Your task to perform on an android device: turn off picture-in-picture Image 0: 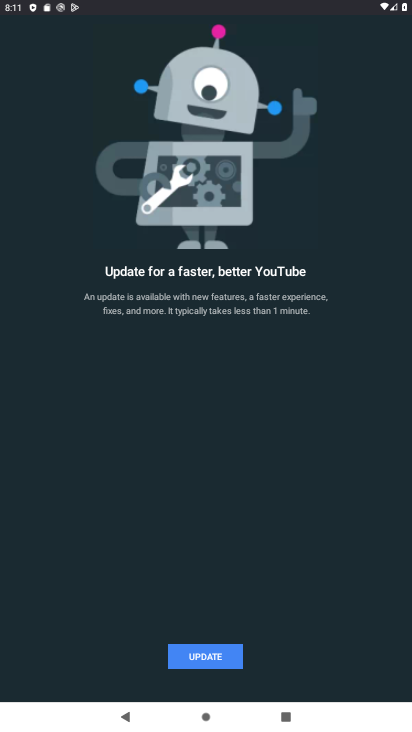
Step 0: press home button
Your task to perform on an android device: turn off picture-in-picture Image 1: 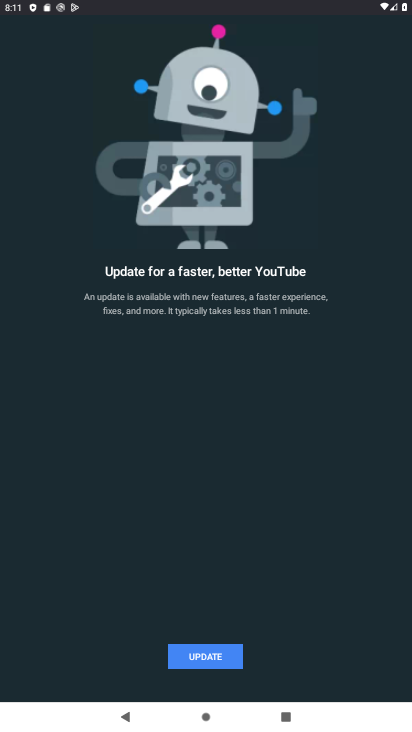
Step 1: press home button
Your task to perform on an android device: turn off picture-in-picture Image 2: 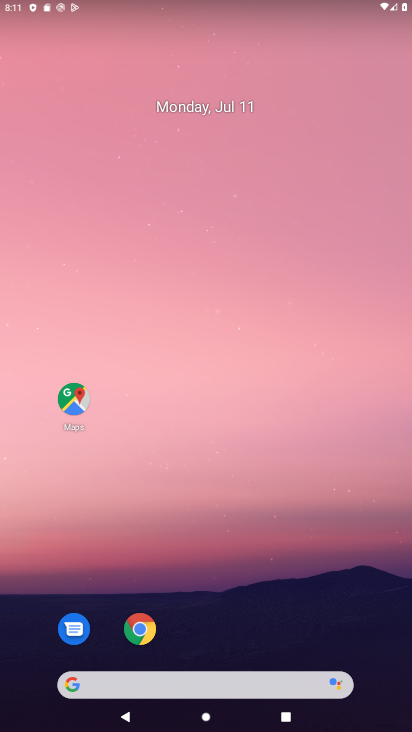
Step 2: drag from (213, 638) to (209, 189)
Your task to perform on an android device: turn off picture-in-picture Image 3: 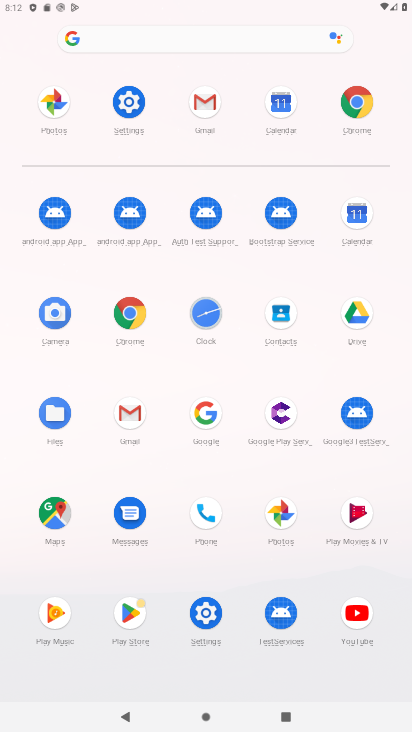
Step 3: click (122, 103)
Your task to perform on an android device: turn off picture-in-picture Image 4: 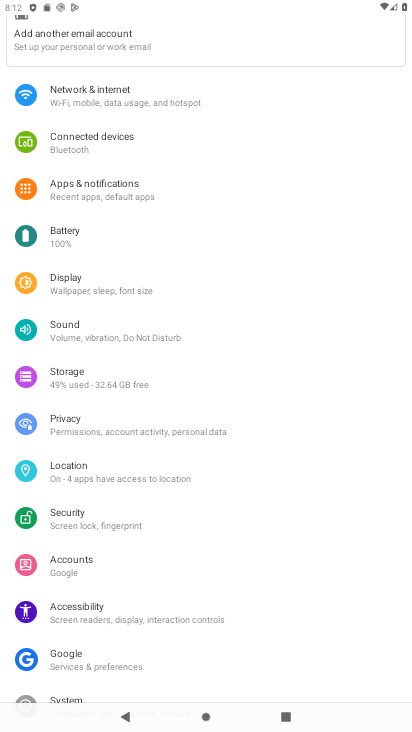
Step 4: drag from (146, 680) to (139, 374)
Your task to perform on an android device: turn off picture-in-picture Image 5: 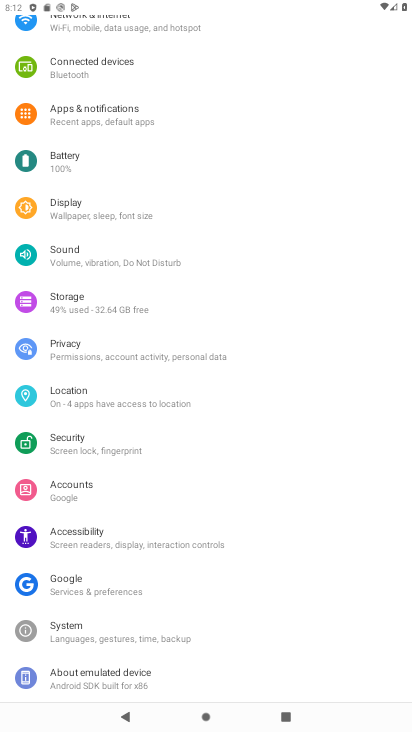
Step 5: click (140, 106)
Your task to perform on an android device: turn off picture-in-picture Image 6: 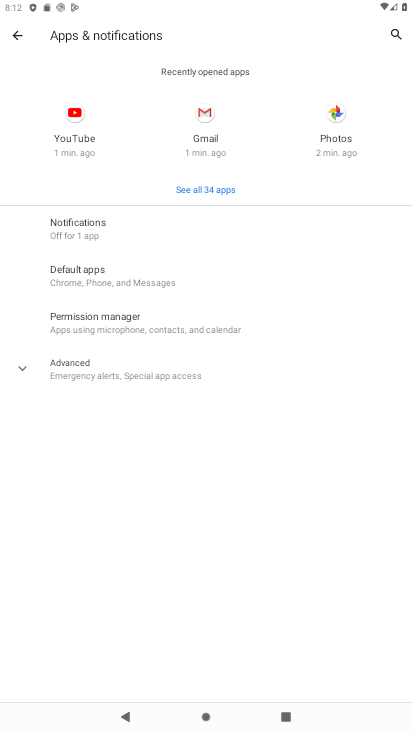
Step 6: click (69, 221)
Your task to perform on an android device: turn off picture-in-picture Image 7: 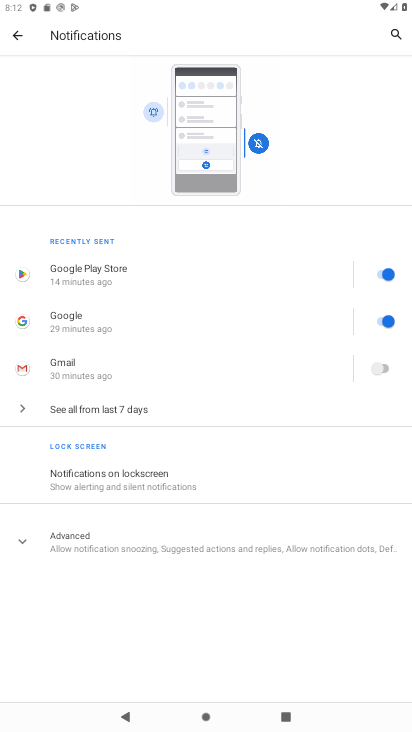
Step 7: click (102, 551)
Your task to perform on an android device: turn off picture-in-picture Image 8: 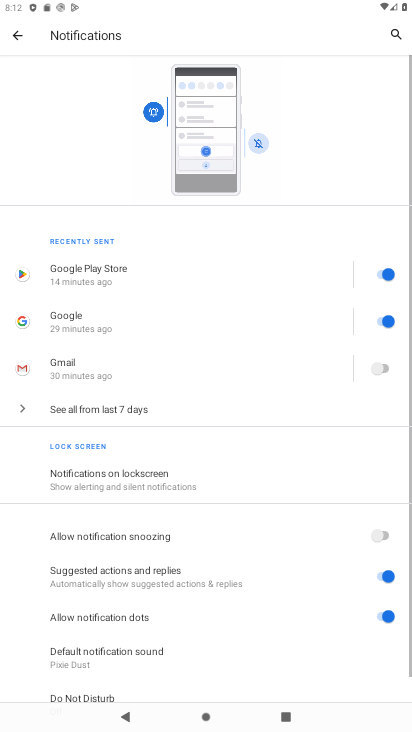
Step 8: task complete